Your task to perform on an android device: make emails show in primary in the gmail app Image 0: 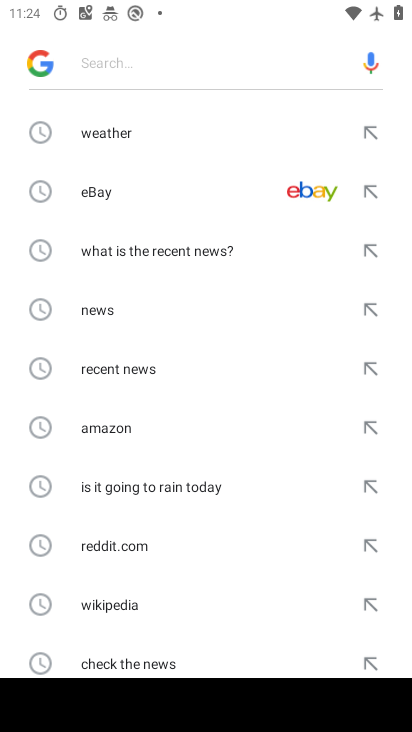
Step 0: press back button
Your task to perform on an android device: make emails show in primary in the gmail app Image 1: 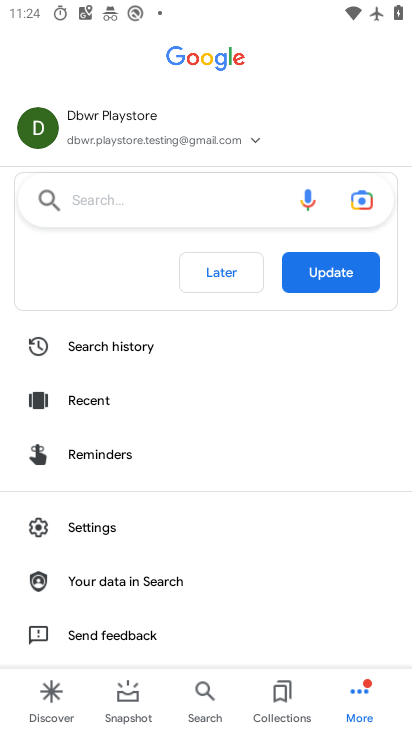
Step 1: press home button
Your task to perform on an android device: make emails show in primary in the gmail app Image 2: 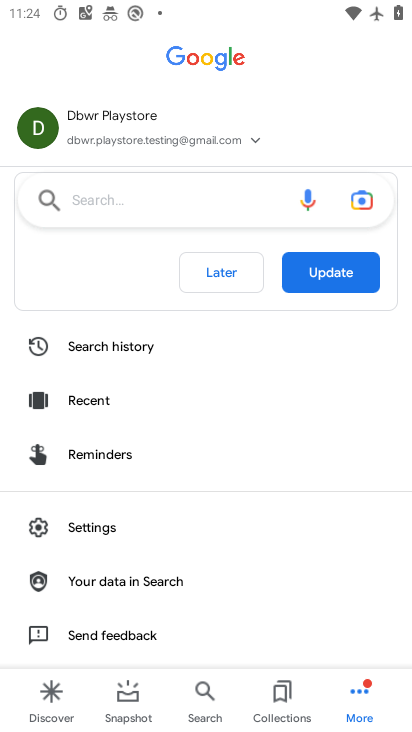
Step 2: press home button
Your task to perform on an android device: make emails show in primary in the gmail app Image 3: 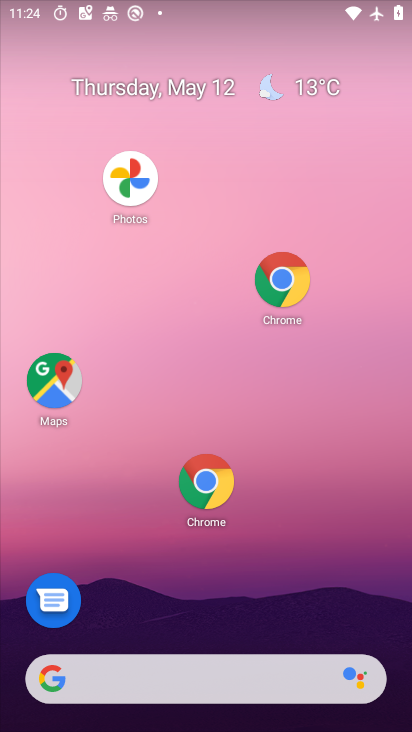
Step 3: drag from (293, 593) to (108, 26)
Your task to perform on an android device: make emails show in primary in the gmail app Image 4: 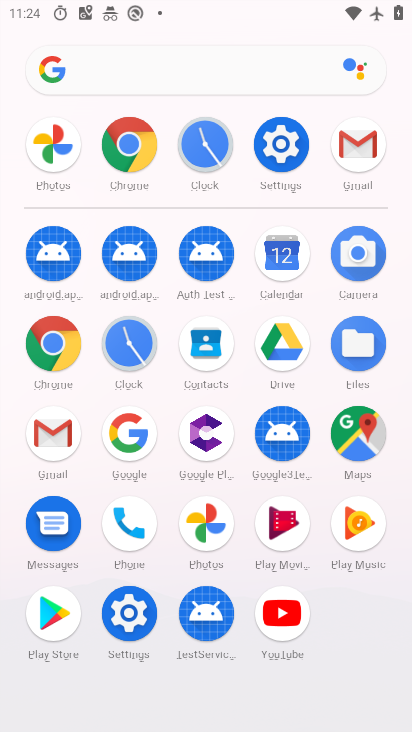
Step 4: click (58, 435)
Your task to perform on an android device: make emails show in primary in the gmail app Image 5: 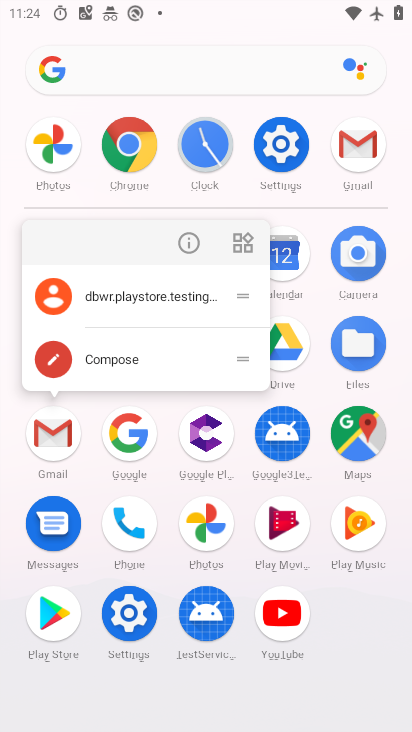
Step 5: click (50, 442)
Your task to perform on an android device: make emails show in primary in the gmail app Image 6: 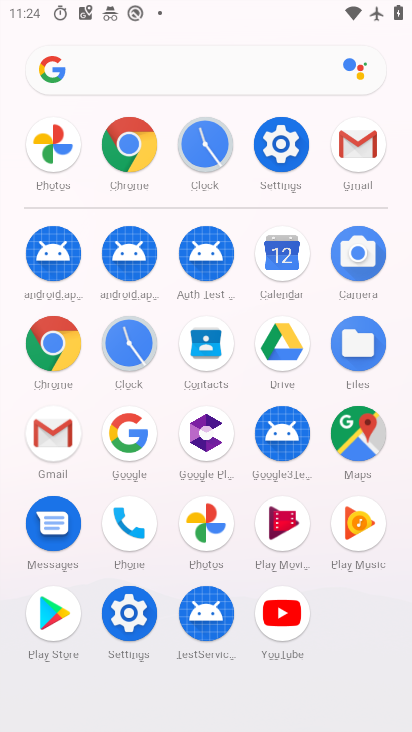
Step 6: click (50, 437)
Your task to perform on an android device: make emails show in primary in the gmail app Image 7: 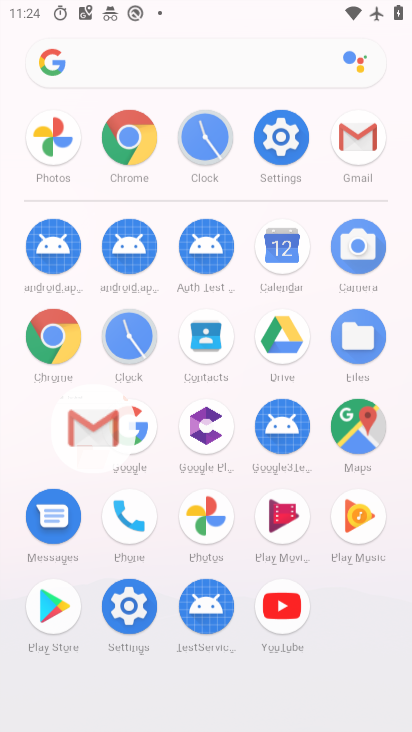
Step 7: click (44, 433)
Your task to perform on an android device: make emails show in primary in the gmail app Image 8: 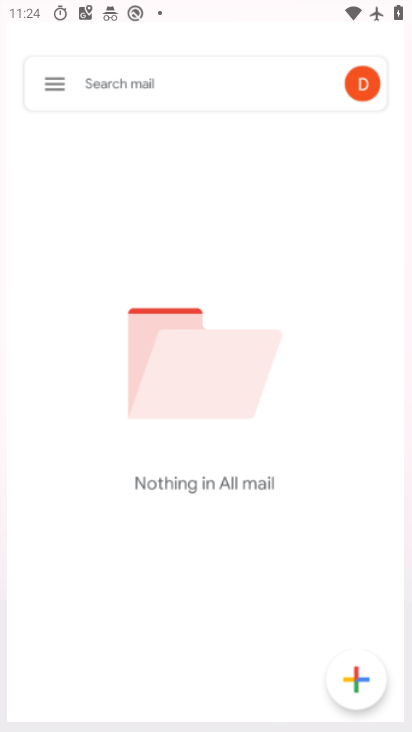
Step 8: click (44, 433)
Your task to perform on an android device: make emails show in primary in the gmail app Image 9: 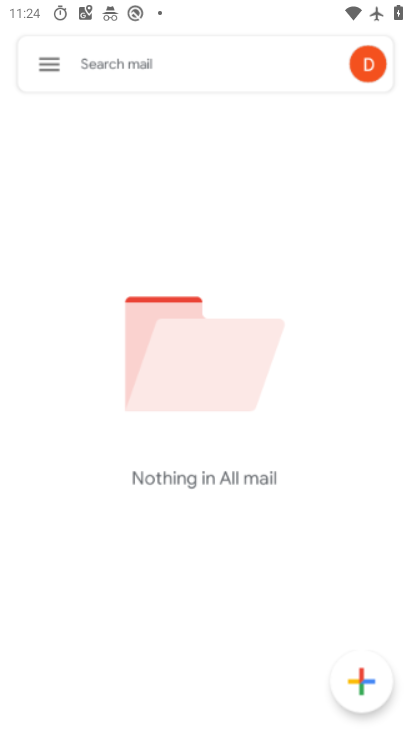
Step 9: click (44, 433)
Your task to perform on an android device: make emails show in primary in the gmail app Image 10: 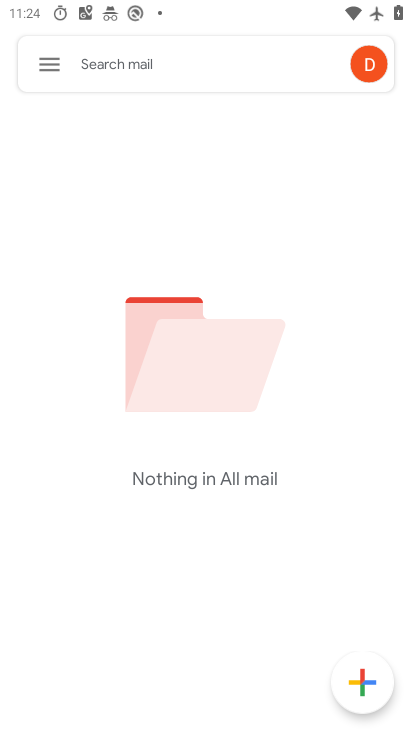
Step 10: click (43, 54)
Your task to perform on an android device: make emails show in primary in the gmail app Image 11: 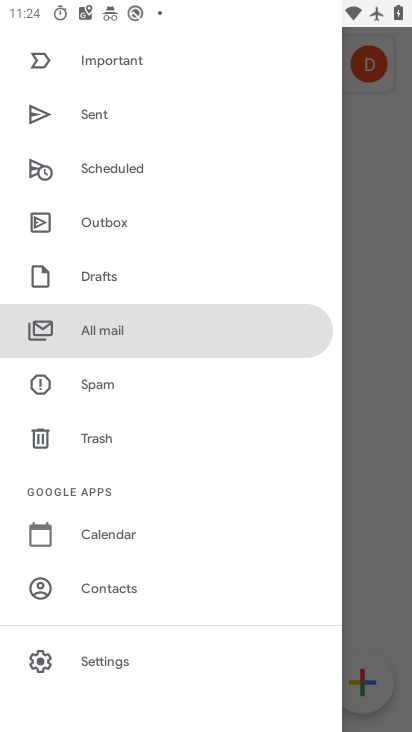
Step 11: click (104, 630)
Your task to perform on an android device: make emails show in primary in the gmail app Image 12: 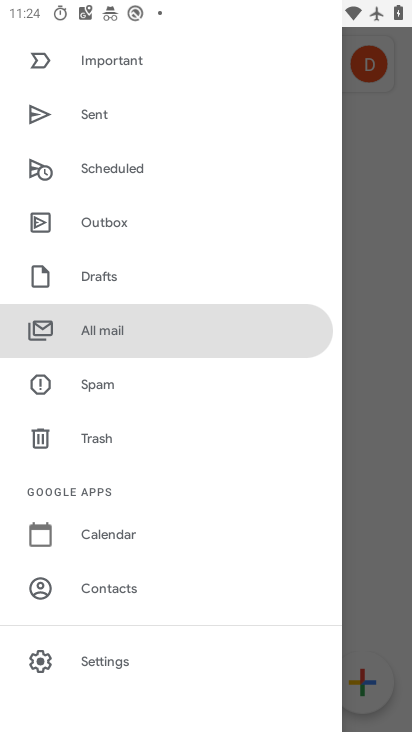
Step 12: click (102, 640)
Your task to perform on an android device: make emails show in primary in the gmail app Image 13: 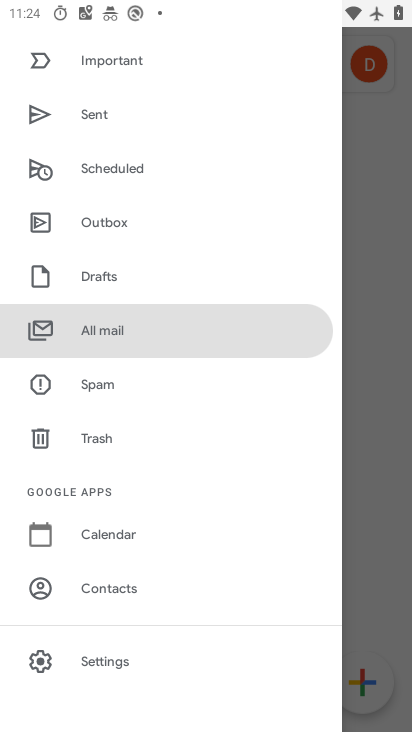
Step 13: click (102, 640)
Your task to perform on an android device: make emails show in primary in the gmail app Image 14: 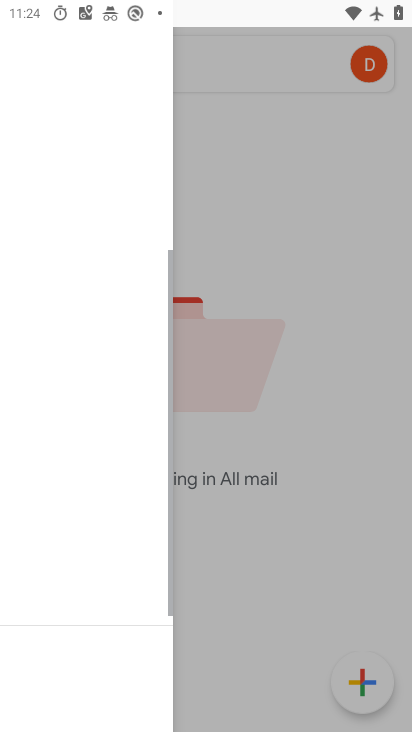
Step 14: click (103, 650)
Your task to perform on an android device: make emails show in primary in the gmail app Image 15: 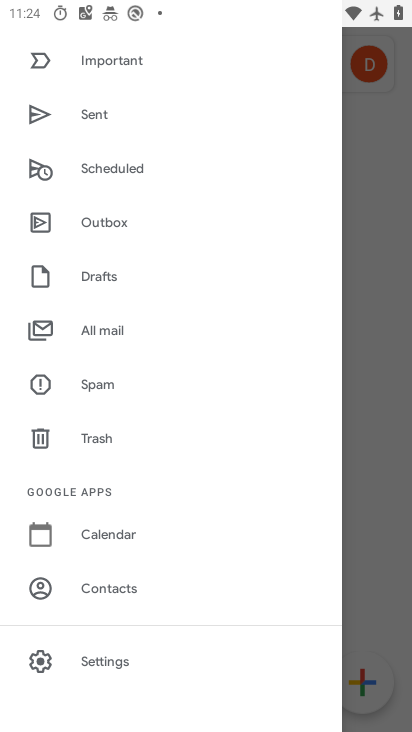
Step 15: click (102, 656)
Your task to perform on an android device: make emails show in primary in the gmail app Image 16: 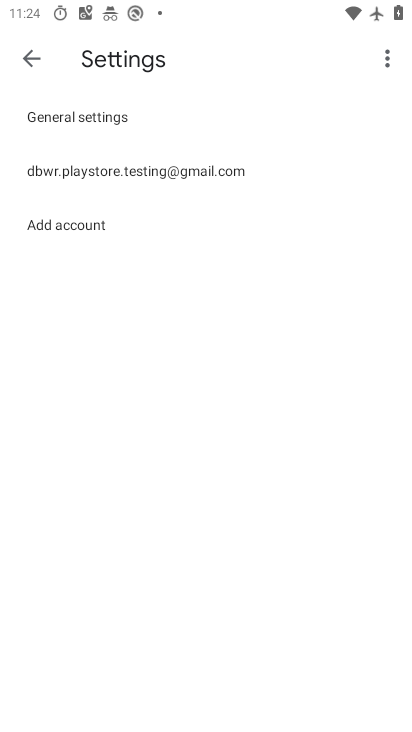
Step 16: click (105, 173)
Your task to perform on an android device: make emails show in primary in the gmail app Image 17: 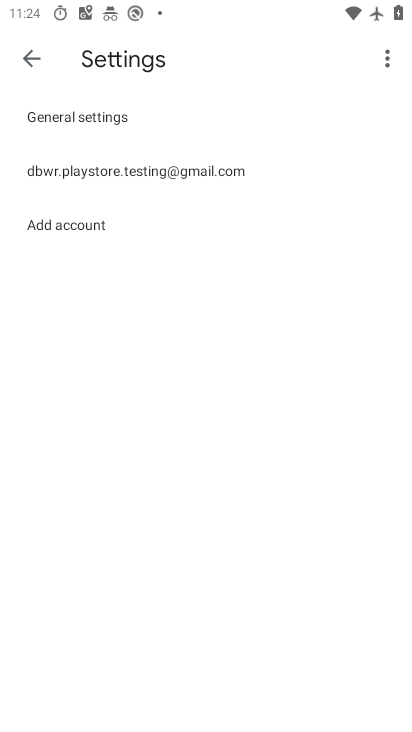
Step 17: click (127, 179)
Your task to perform on an android device: make emails show in primary in the gmail app Image 18: 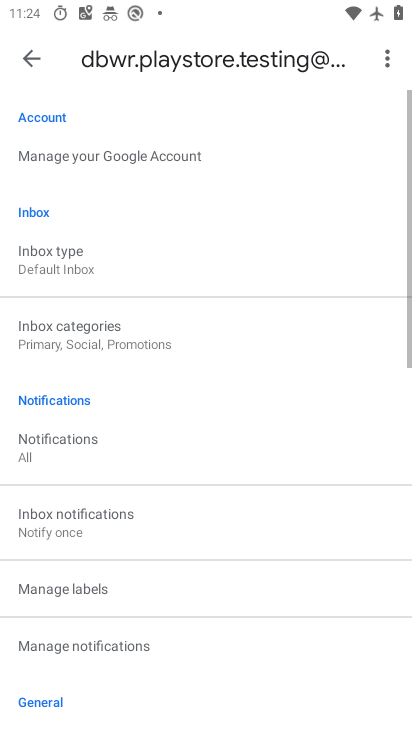
Step 18: task complete